Your task to perform on an android device: Open Chrome and go to settings Image 0: 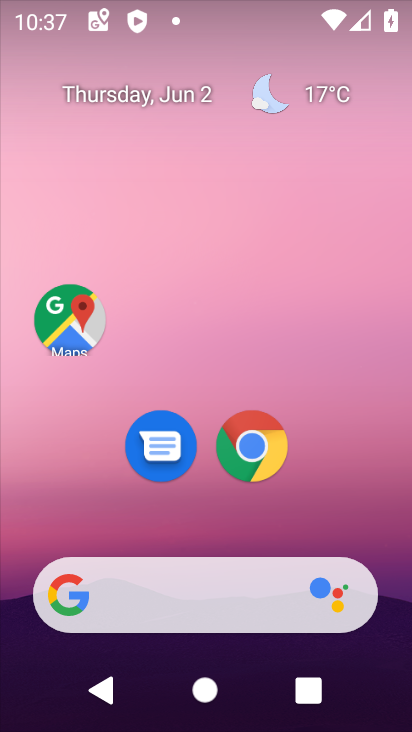
Step 0: click (259, 446)
Your task to perform on an android device: Open Chrome and go to settings Image 1: 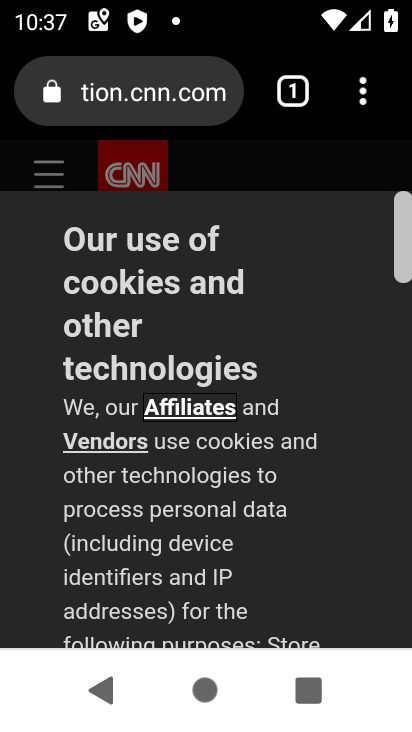
Step 1: task complete